Your task to perform on an android device: find photos in the google photos app Image 0: 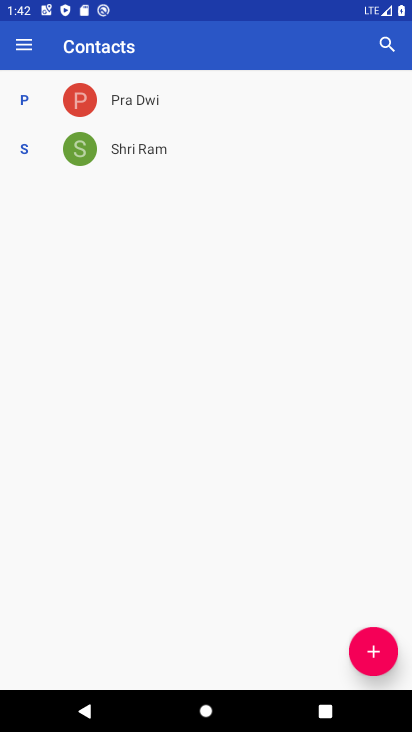
Step 0: press home button
Your task to perform on an android device: find photos in the google photos app Image 1: 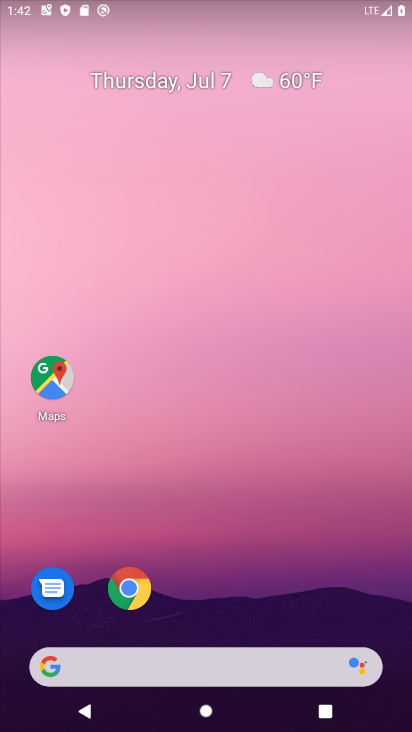
Step 1: drag from (285, 619) to (248, 172)
Your task to perform on an android device: find photos in the google photos app Image 2: 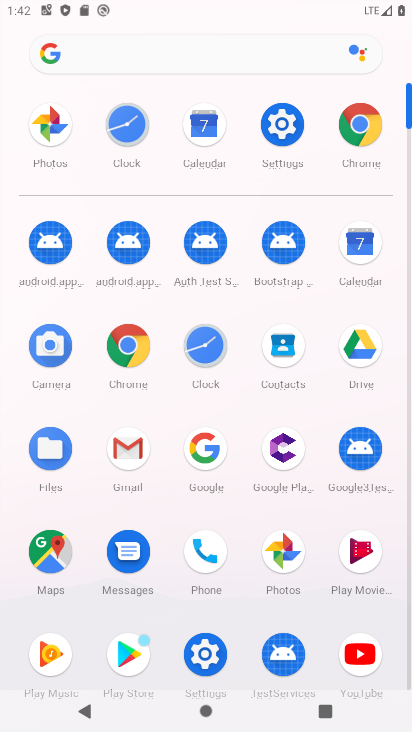
Step 2: click (293, 540)
Your task to perform on an android device: find photos in the google photos app Image 3: 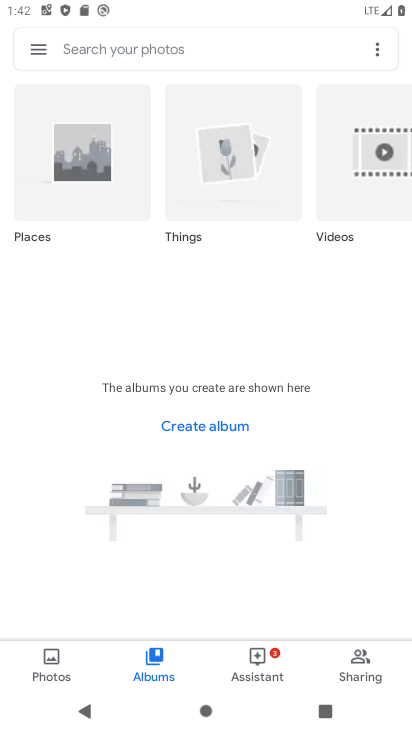
Step 3: click (49, 649)
Your task to perform on an android device: find photos in the google photos app Image 4: 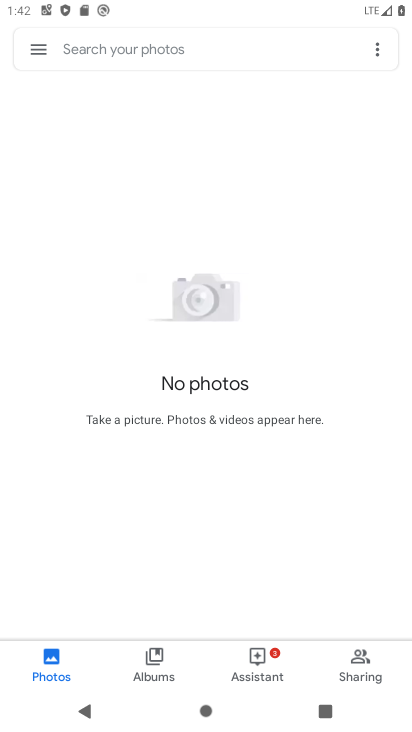
Step 4: task complete